Your task to perform on an android device: set default search engine in the chrome app Image 0: 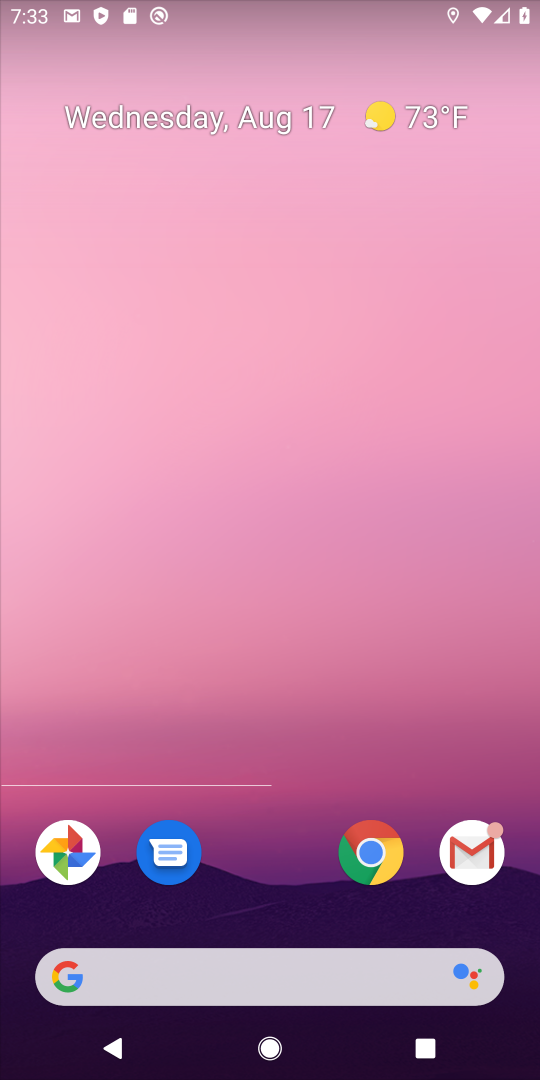
Step 0: press home button
Your task to perform on an android device: set default search engine in the chrome app Image 1: 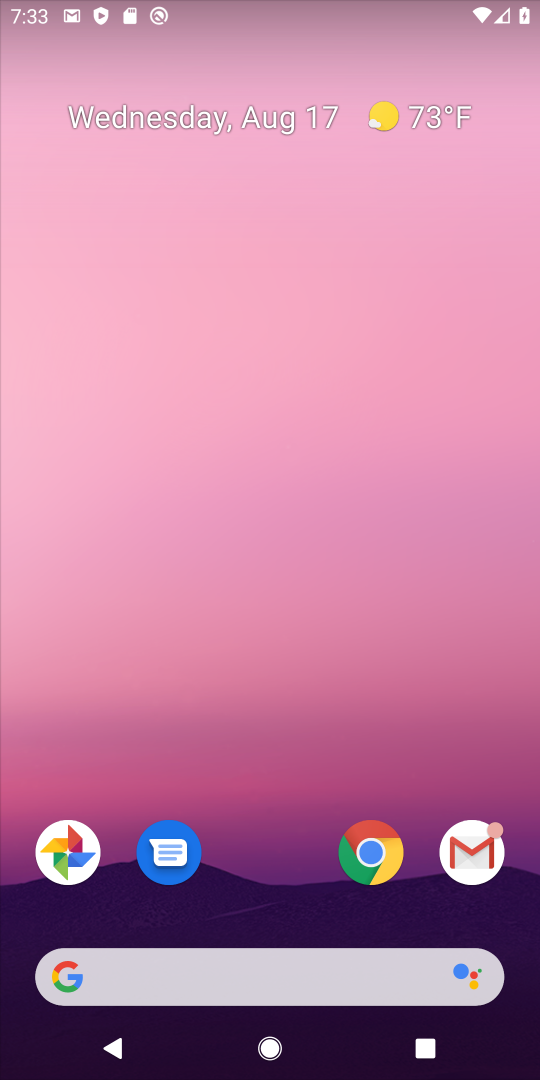
Step 1: press home button
Your task to perform on an android device: set default search engine in the chrome app Image 2: 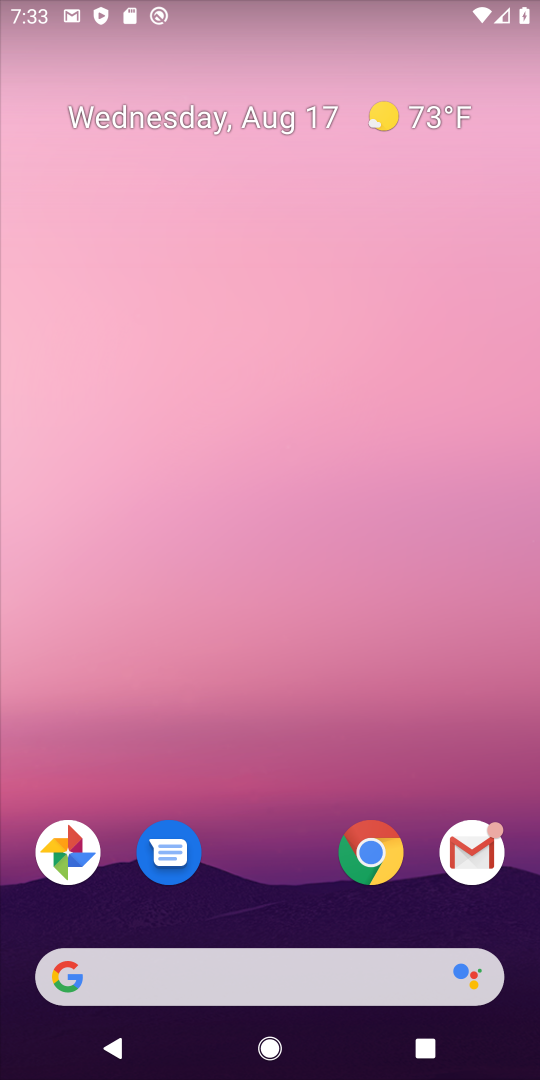
Step 2: click (370, 857)
Your task to perform on an android device: set default search engine in the chrome app Image 3: 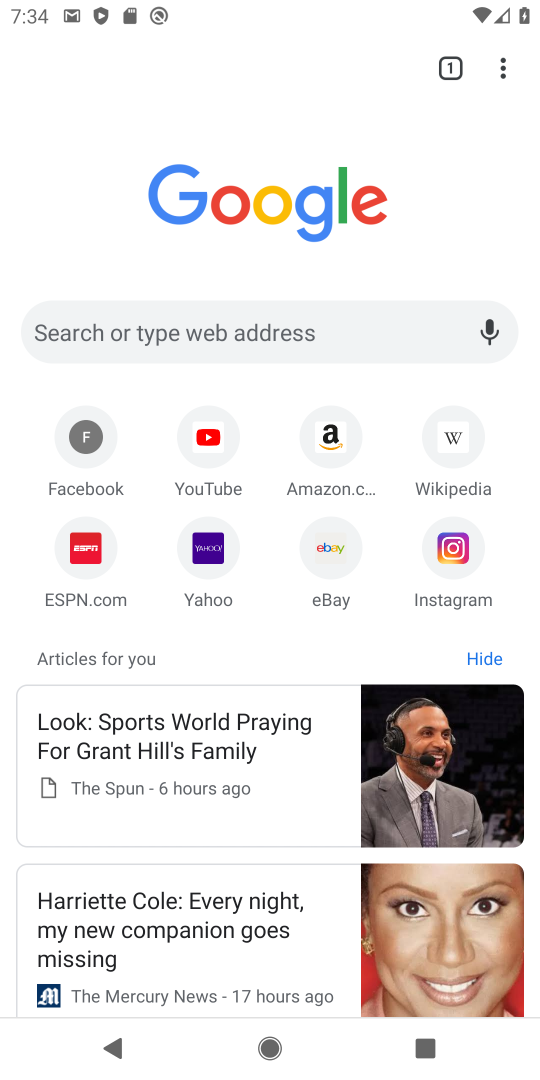
Step 3: click (497, 68)
Your task to perform on an android device: set default search engine in the chrome app Image 4: 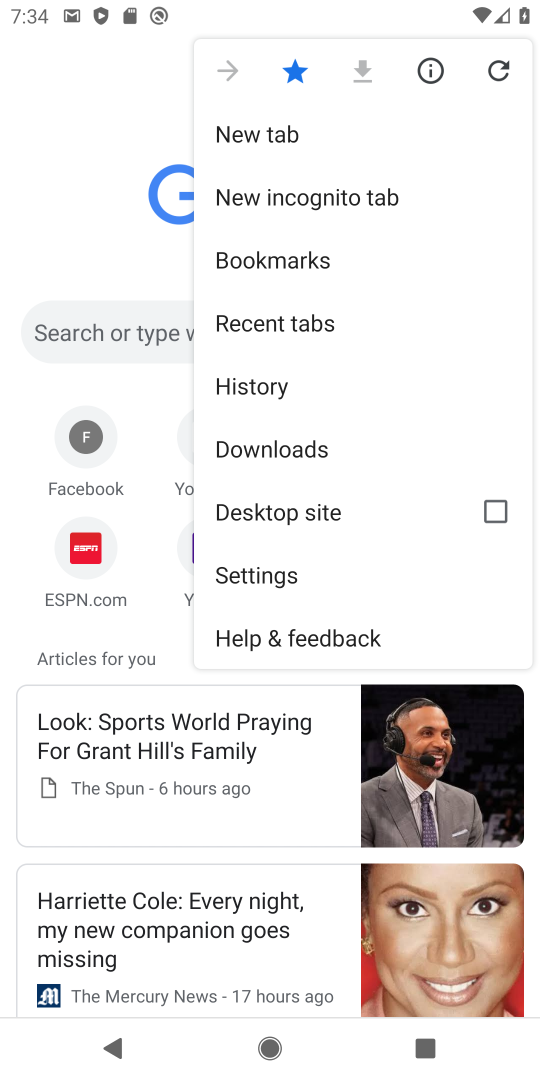
Step 4: click (259, 569)
Your task to perform on an android device: set default search engine in the chrome app Image 5: 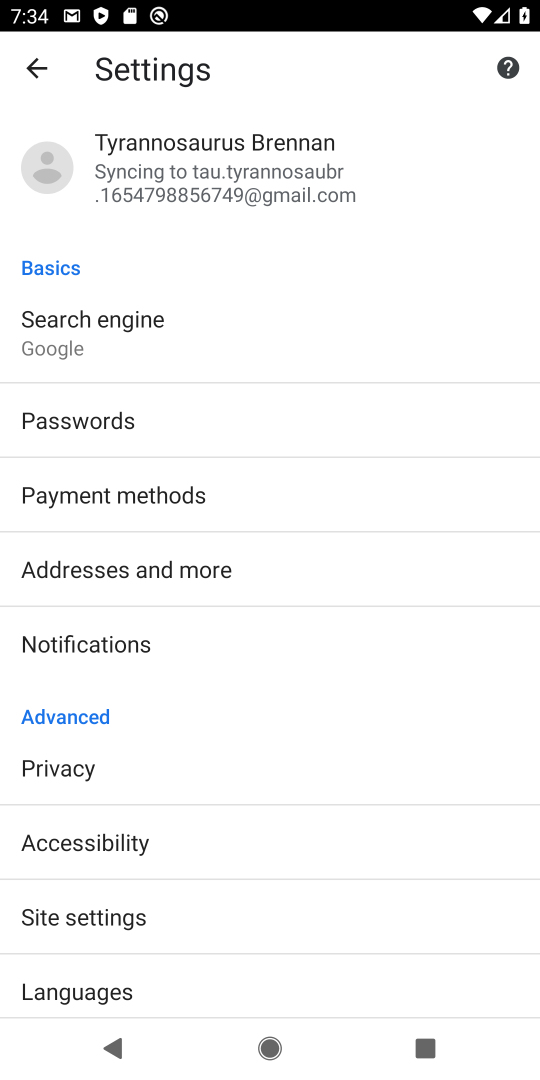
Step 5: click (106, 322)
Your task to perform on an android device: set default search engine in the chrome app Image 6: 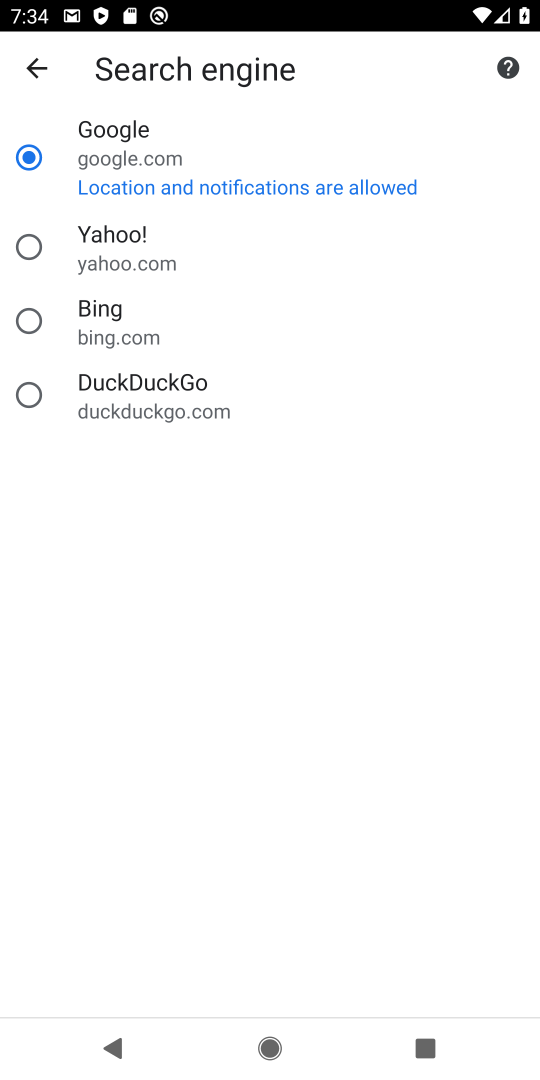
Step 6: task complete